Your task to perform on an android device: turn on showing notifications on the lock screen Image 0: 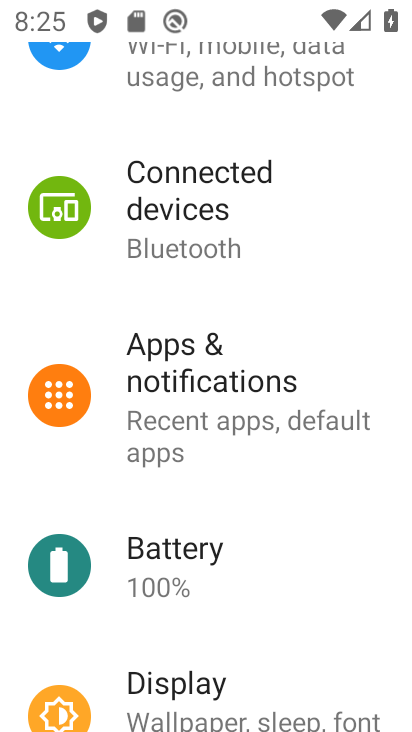
Step 0: press home button
Your task to perform on an android device: turn on showing notifications on the lock screen Image 1: 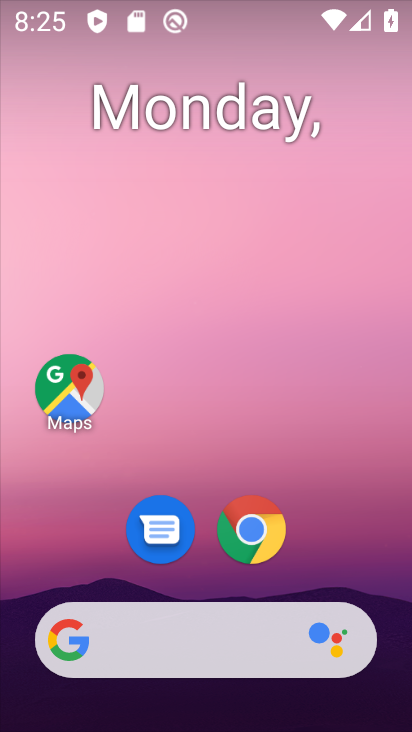
Step 1: drag from (41, 576) to (248, 116)
Your task to perform on an android device: turn on showing notifications on the lock screen Image 2: 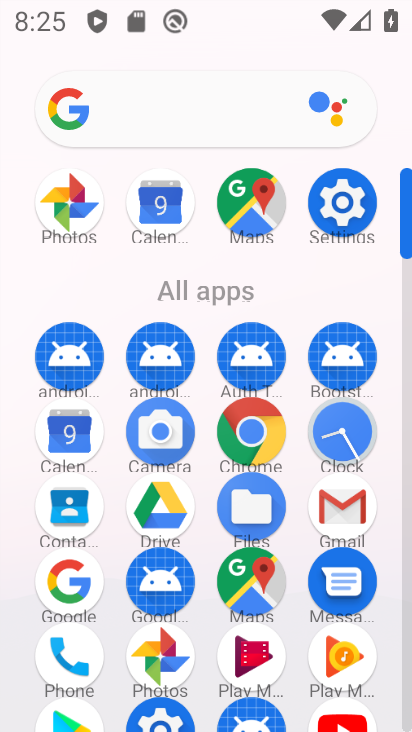
Step 2: click (333, 220)
Your task to perform on an android device: turn on showing notifications on the lock screen Image 3: 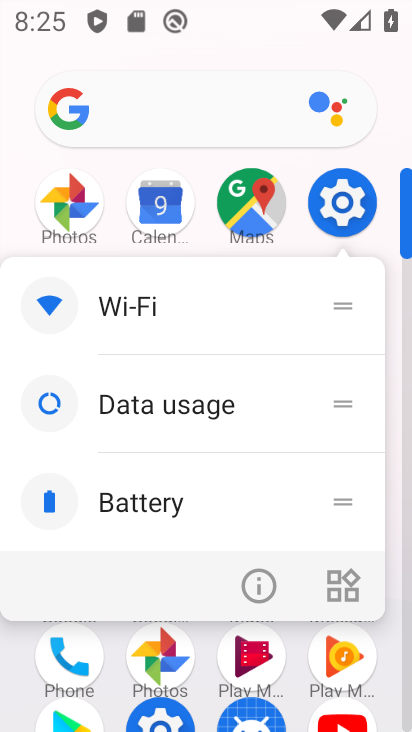
Step 3: click (343, 202)
Your task to perform on an android device: turn on showing notifications on the lock screen Image 4: 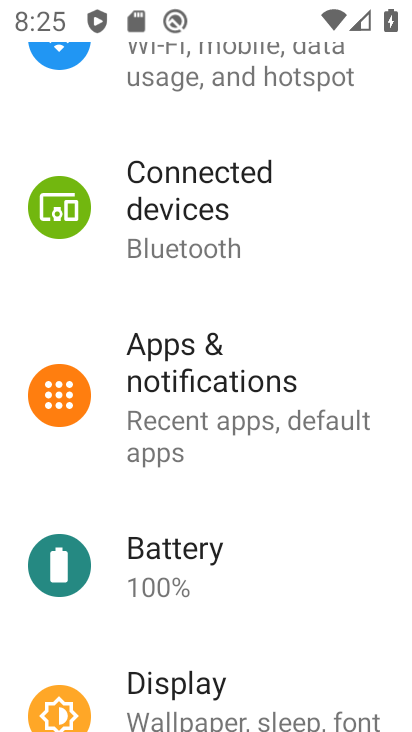
Step 4: click (193, 378)
Your task to perform on an android device: turn on showing notifications on the lock screen Image 5: 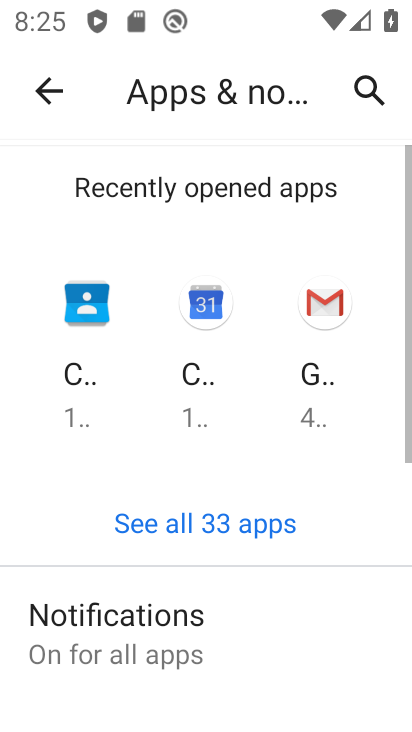
Step 5: click (140, 640)
Your task to perform on an android device: turn on showing notifications on the lock screen Image 6: 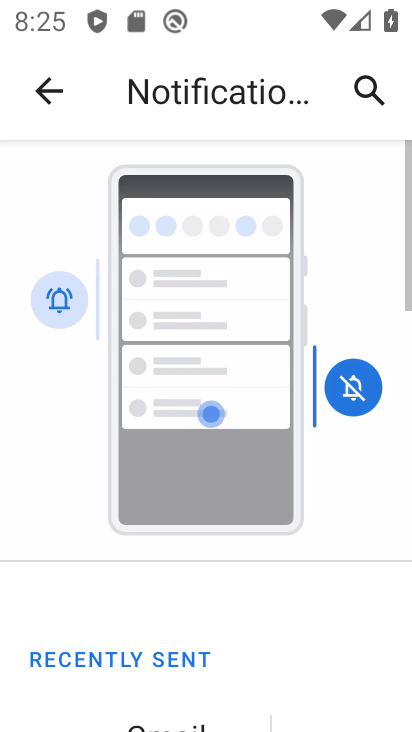
Step 6: drag from (91, 695) to (219, 209)
Your task to perform on an android device: turn on showing notifications on the lock screen Image 7: 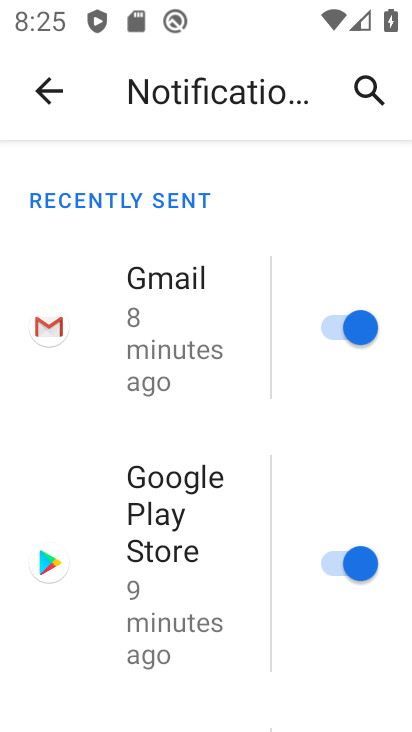
Step 7: drag from (98, 668) to (206, 282)
Your task to perform on an android device: turn on showing notifications on the lock screen Image 8: 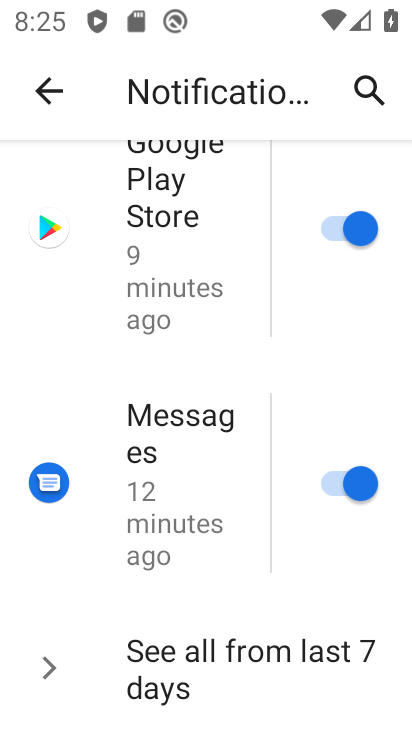
Step 8: drag from (112, 656) to (268, 240)
Your task to perform on an android device: turn on showing notifications on the lock screen Image 9: 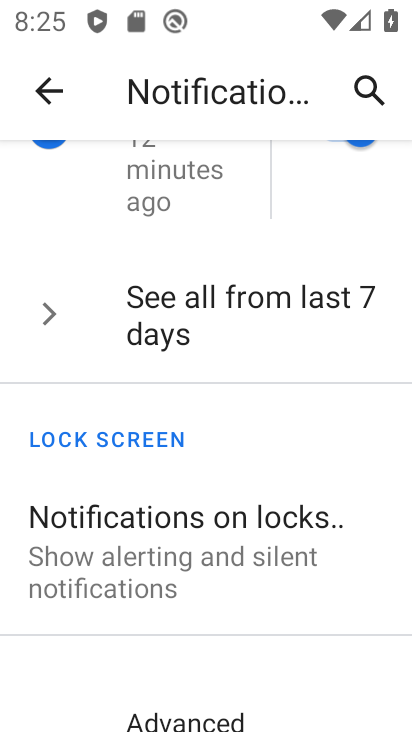
Step 9: drag from (176, 625) to (334, 249)
Your task to perform on an android device: turn on showing notifications on the lock screen Image 10: 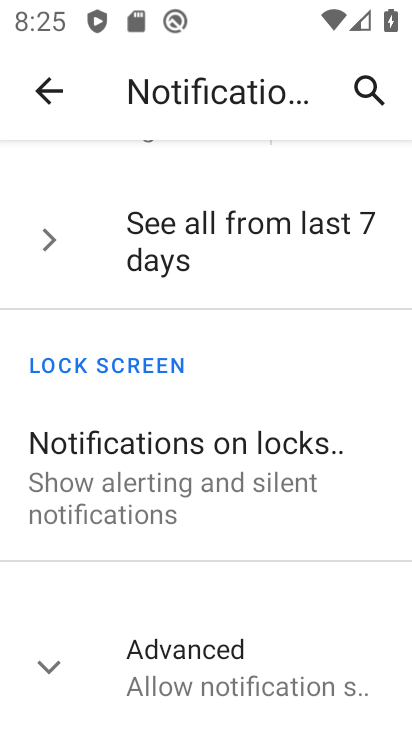
Step 10: click (203, 455)
Your task to perform on an android device: turn on showing notifications on the lock screen Image 11: 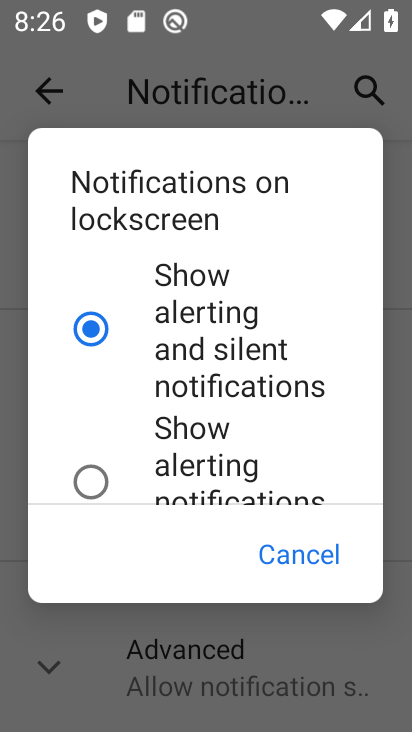
Step 11: task complete